Your task to perform on an android device: turn on sleep mode Image 0: 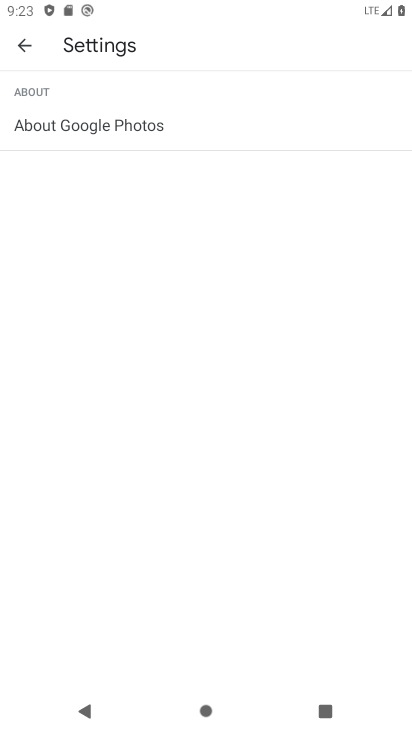
Step 0: drag from (239, 682) to (327, 65)
Your task to perform on an android device: turn on sleep mode Image 1: 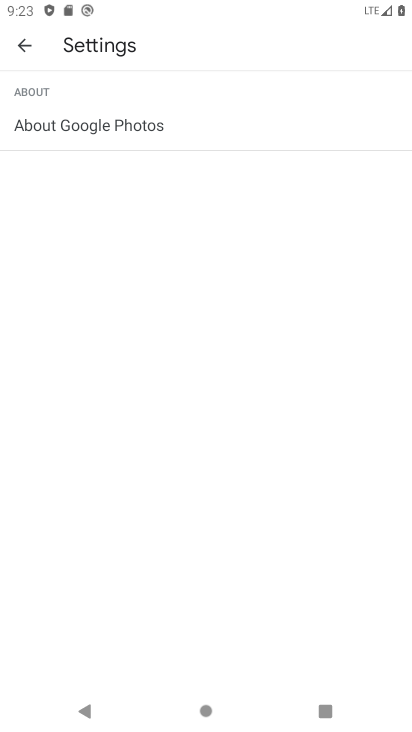
Step 1: press home button
Your task to perform on an android device: turn on sleep mode Image 2: 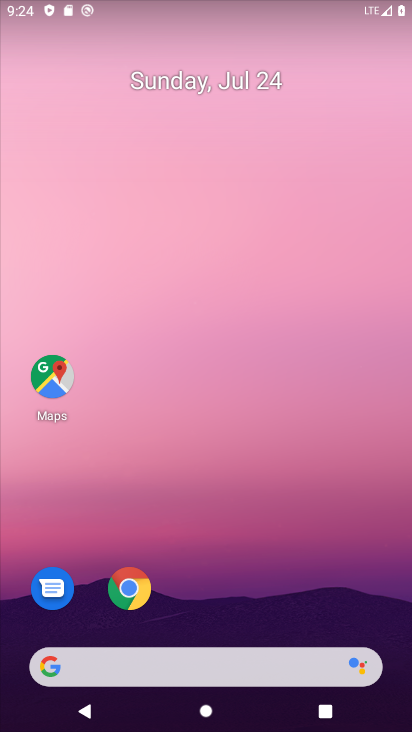
Step 2: drag from (278, 543) to (330, 186)
Your task to perform on an android device: turn on sleep mode Image 3: 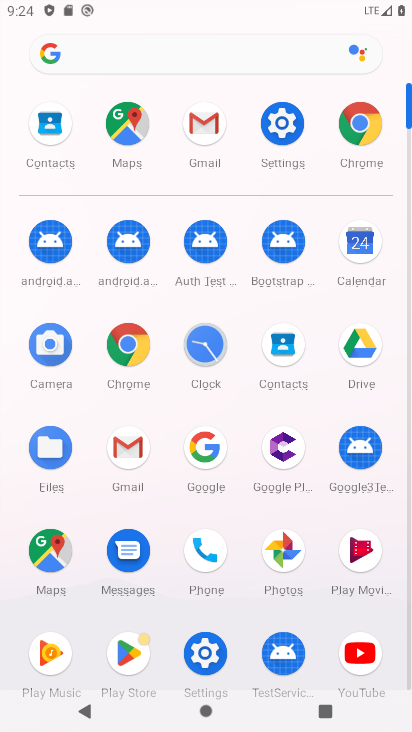
Step 3: click (290, 115)
Your task to perform on an android device: turn on sleep mode Image 4: 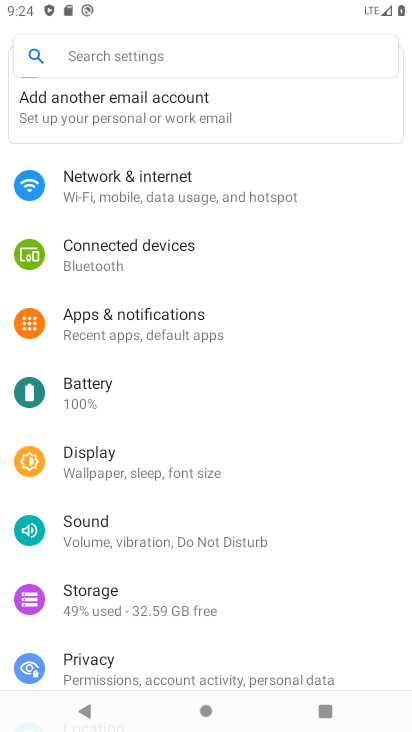
Step 4: click (227, 465)
Your task to perform on an android device: turn on sleep mode Image 5: 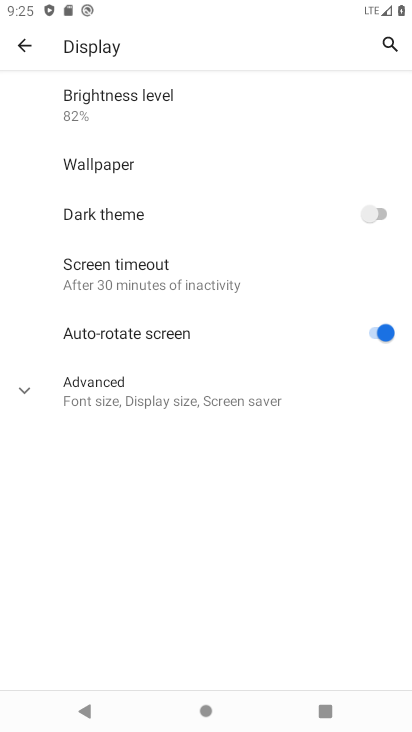
Step 5: task complete